Your task to perform on an android device: turn on wifi Image 0: 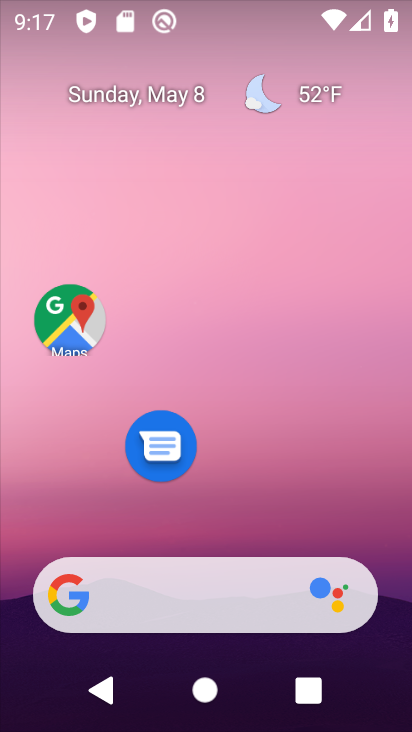
Step 0: drag from (199, 0) to (235, 724)
Your task to perform on an android device: turn on wifi Image 1: 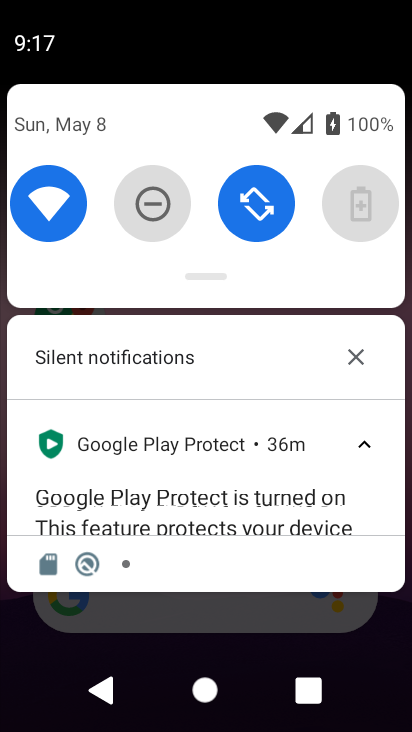
Step 1: task complete